Your task to perform on an android device: turn pop-ups on in chrome Image 0: 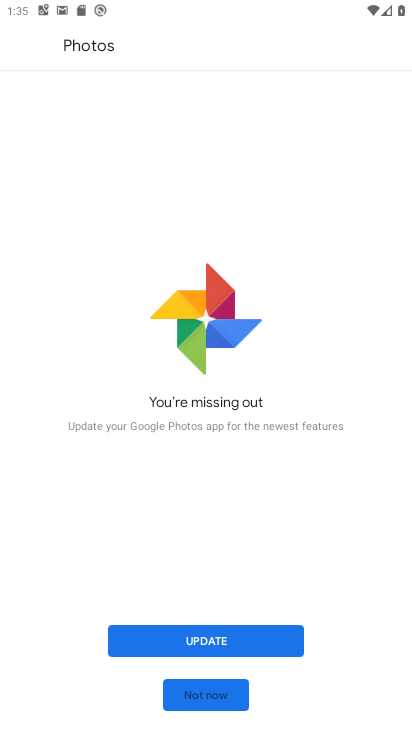
Step 0: press home button
Your task to perform on an android device: turn pop-ups on in chrome Image 1: 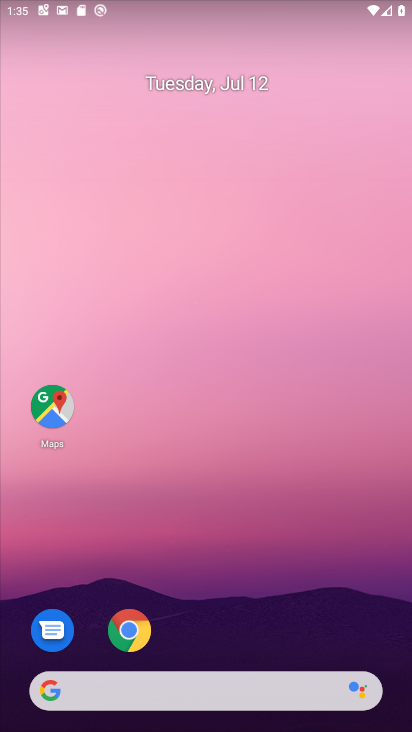
Step 1: drag from (254, 659) to (278, 236)
Your task to perform on an android device: turn pop-ups on in chrome Image 2: 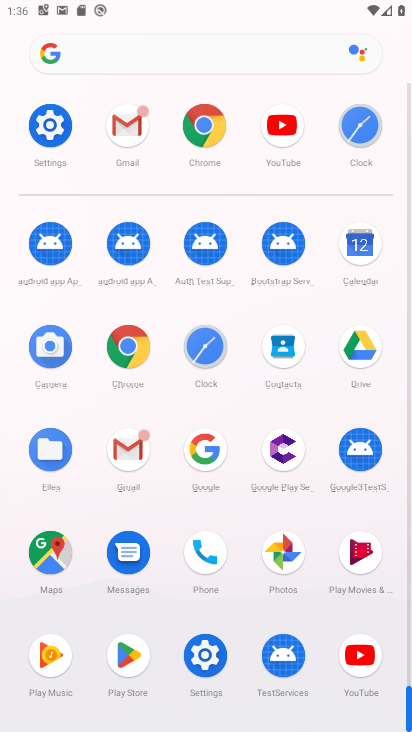
Step 2: click (219, 121)
Your task to perform on an android device: turn pop-ups on in chrome Image 3: 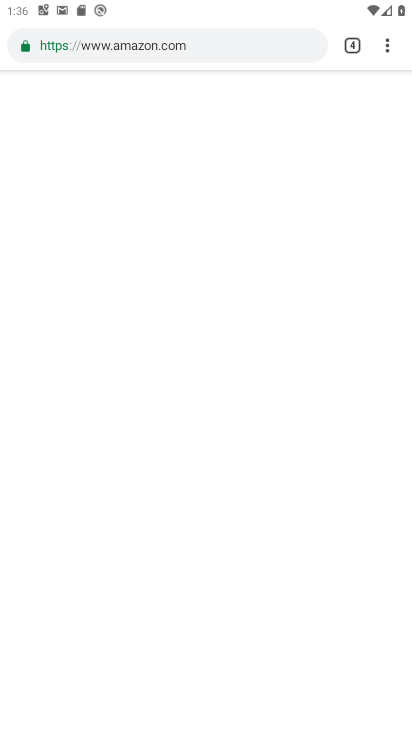
Step 3: click (388, 33)
Your task to perform on an android device: turn pop-ups on in chrome Image 4: 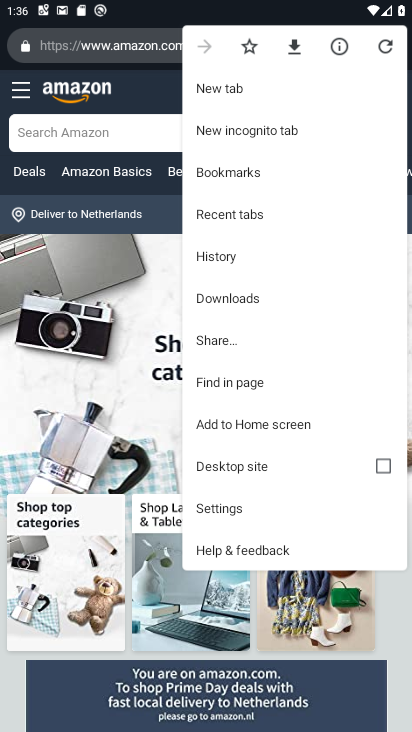
Step 4: click (228, 511)
Your task to perform on an android device: turn pop-ups on in chrome Image 5: 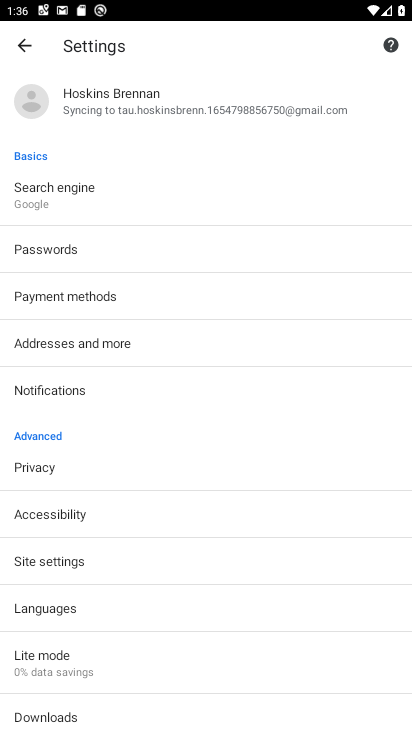
Step 5: click (79, 562)
Your task to perform on an android device: turn pop-ups on in chrome Image 6: 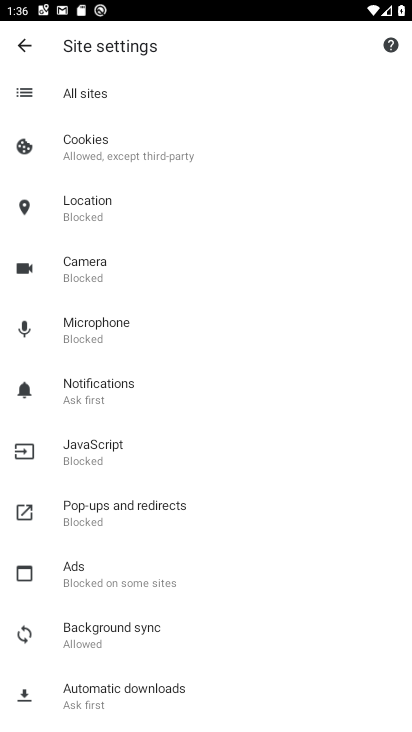
Step 6: click (166, 519)
Your task to perform on an android device: turn pop-ups on in chrome Image 7: 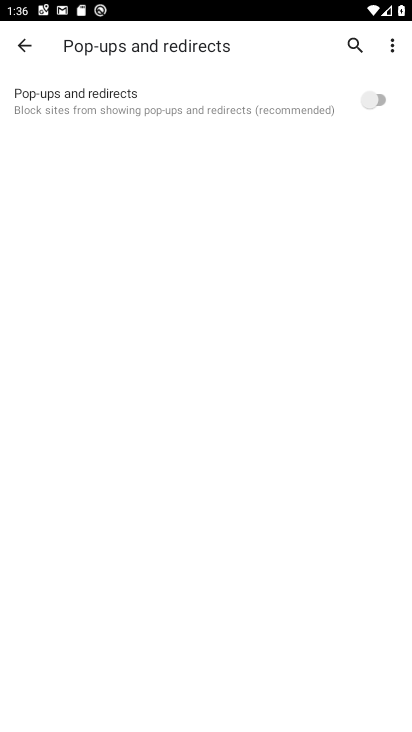
Step 7: click (383, 100)
Your task to perform on an android device: turn pop-ups on in chrome Image 8: 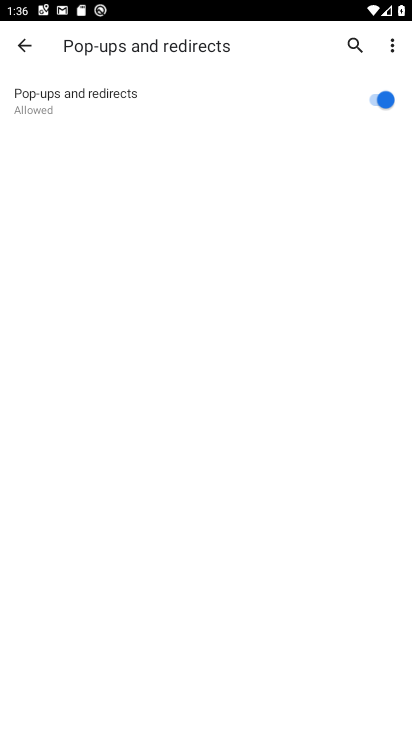
Step 8: task complete